Your task to perform on an android device: What's the weather going to be tomorrow? Image 0: 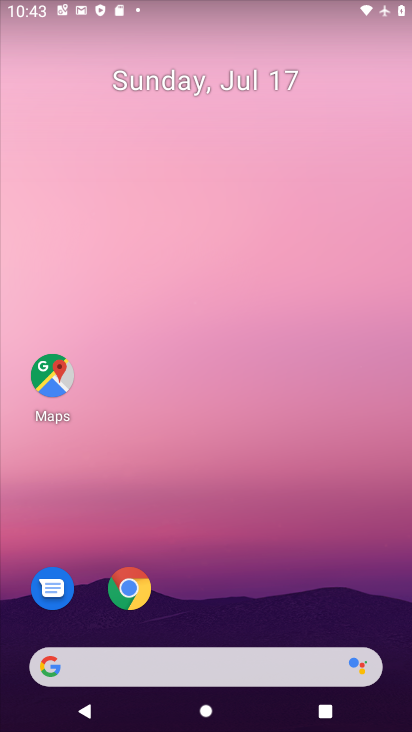
Step 0: click (116, 597)
Your task to perform on an android device: What's the weather going to be tomorrow? Image 1: 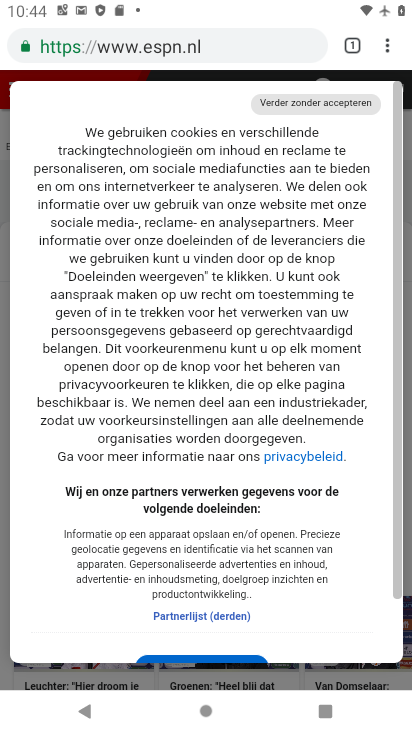
Step 1: click (212, 33)
Your task to perform on an android device: What's the weather going to be tomorrow? Image 2: 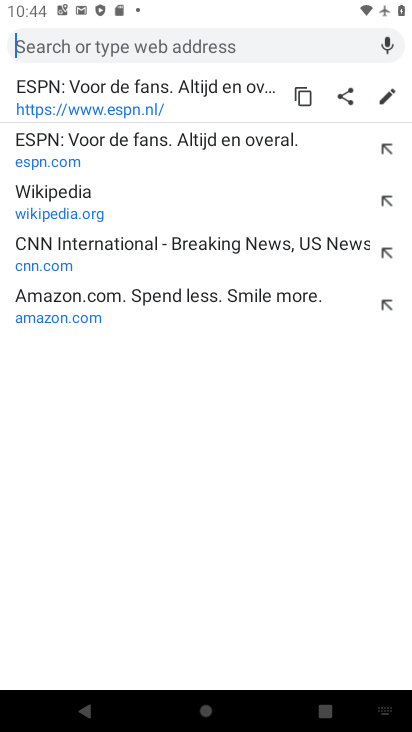
Step 2: type "What's the weather going to be tomorrow?"
Your task to perform on an android device: What's the weather going to be tomorrow? Image 3: 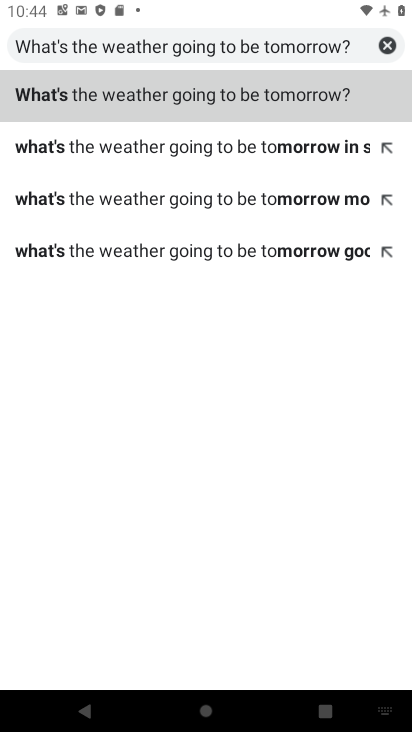
Step 3: click (340, 93)
Your task to perform on an android device: What's the weather going to be tomorrow? Image 4: 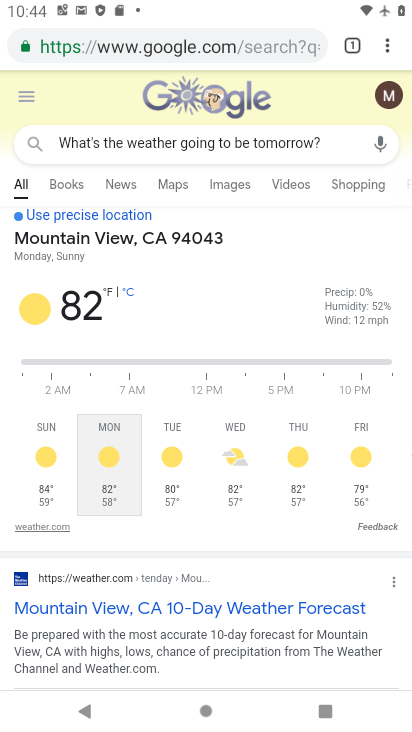
Step 4: task complete